Your task to perform on an android device: Go to notification settings Image 0: 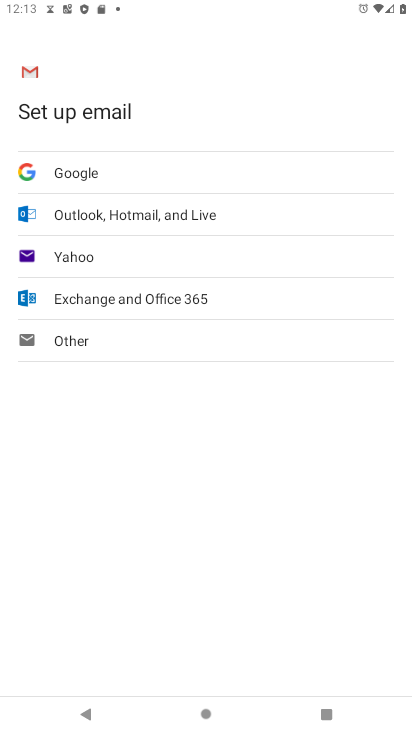
Step 0: press home button
Your task to perform on an android device: Go to notification settings Image 1: 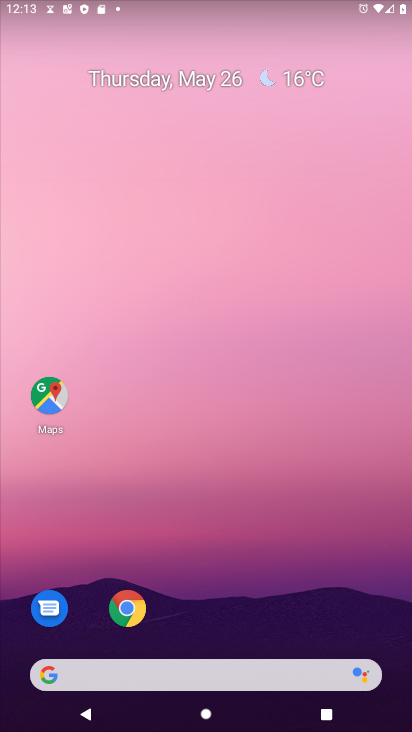
Step 1: drag from (229, 662) to (235, 10)
Your task to perform on an android device: Go to notification settings Image 2: 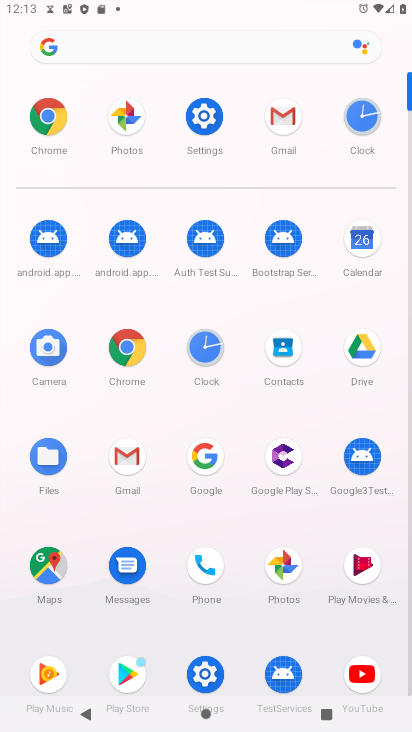
Step 2: click (201, 116)
Your task to perform on an android device: Go to notification settings Image 3: 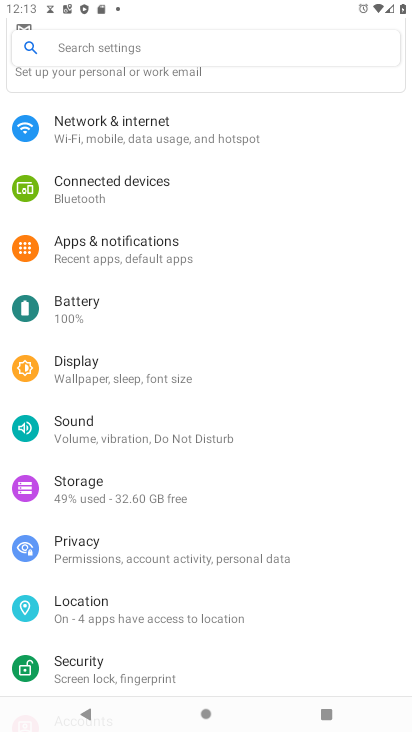
Step 3: click (110, 244)
Your task to perform on an android device: Go to notification settings Image 4: 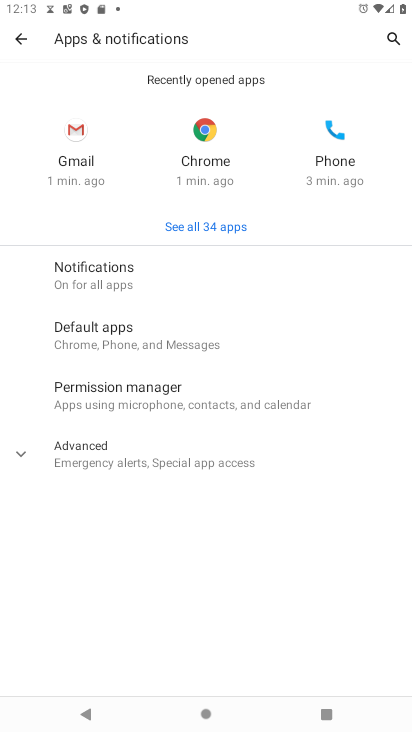
Step 4: click (92, 274)
Your task to perform on an android device: Go to notification settings Image 5: 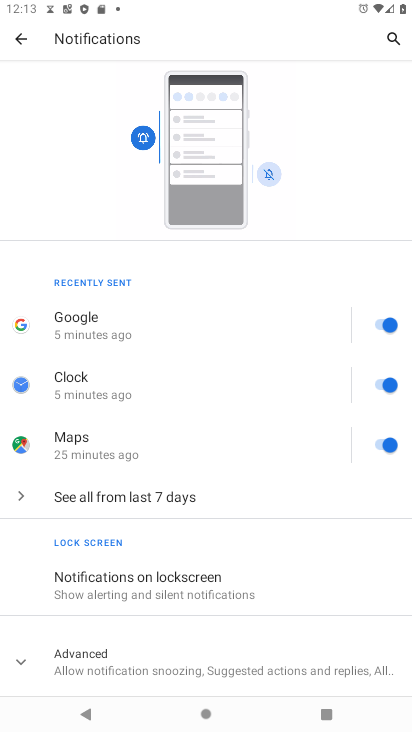
Step 5: task complete